Your task to perform on an android device: read, delete, or share a saved page in the chrome app Image 0: 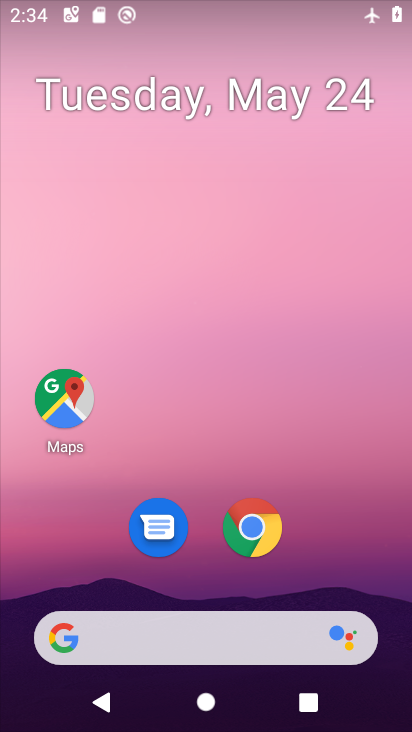
Step 0: click (252, 536)
Your task to perform on an android device: read, delete, or share a saved page in the chrome app Image 1: 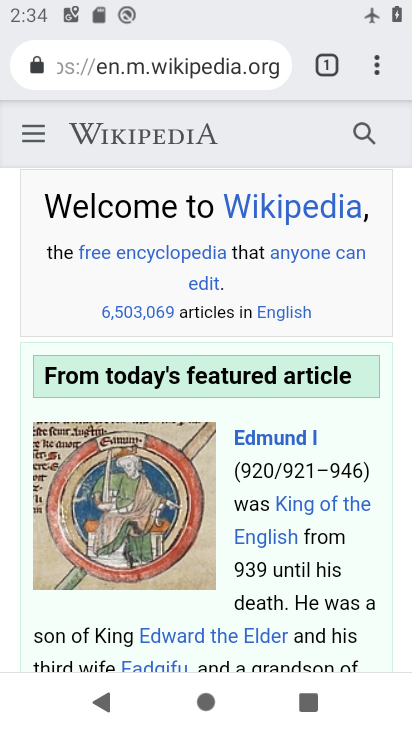
Step 1: click (380, 61)
Your task to perform on an android device: read, delete, or share a saved page in the chrome app Image 2: 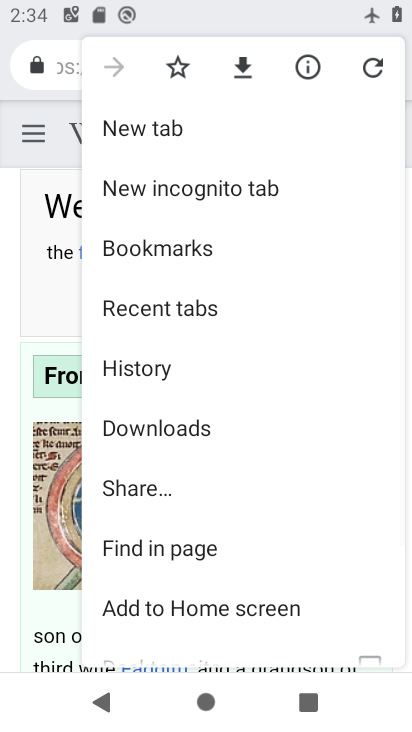
Step 2: click (150, 429)
Your task to perform on an android device: read, delete, or share a saved page in the chrome app Image 3: 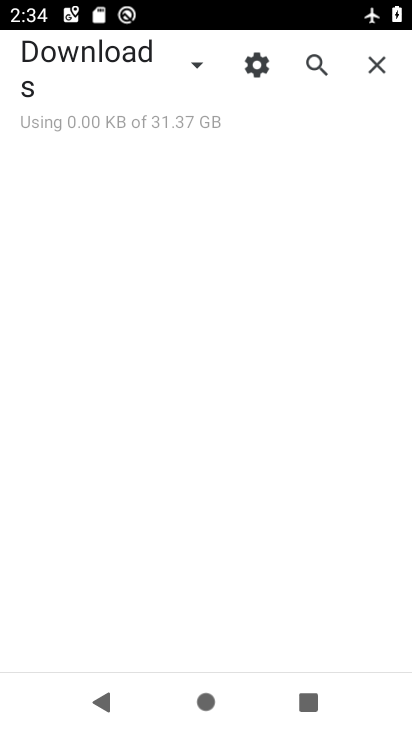
Step 3: click (202, 68)
Your task to perform on an android device: read, delete, or share a saved page in the chrome app Image 4: 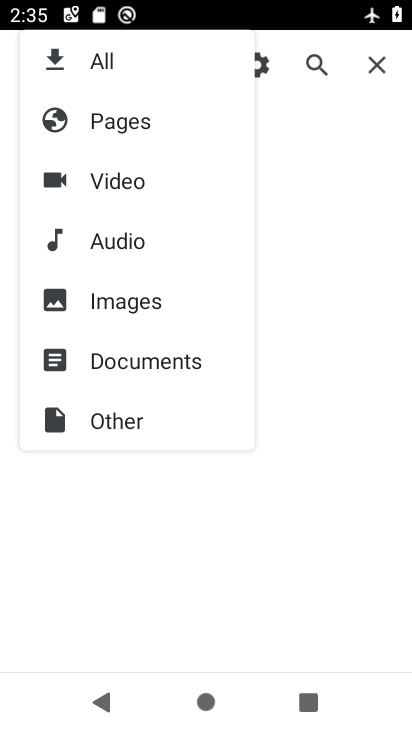
Step 4: click (136, 115)
Your task to perform on an android device: read, delete, or share a saved page in the chrome app Image 5: 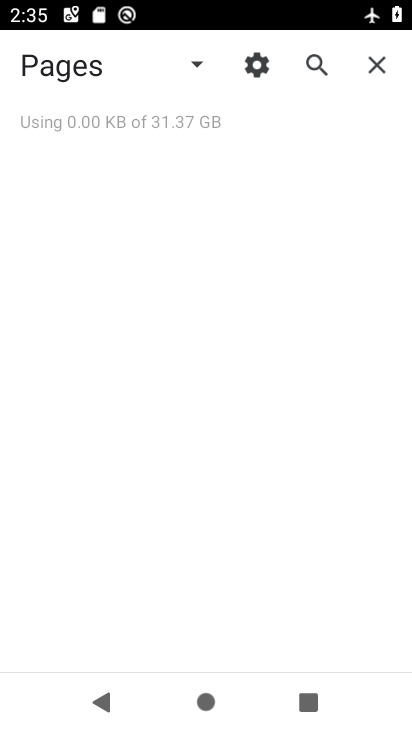
Step 5: task complete